Your task to perform on an android device: clear all cookies in the chrome app Image 0: 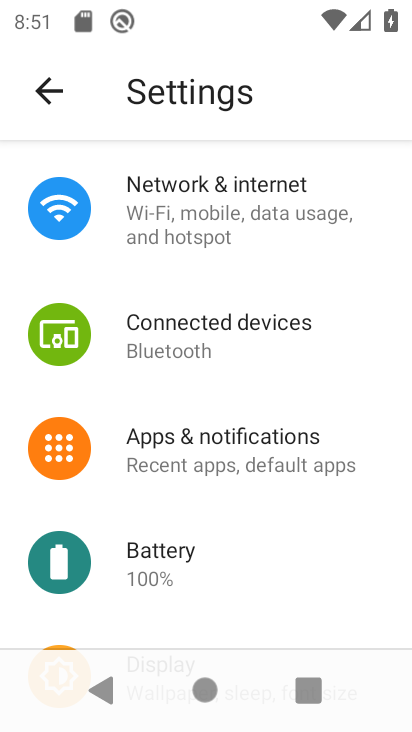
Step 0: press home button
Your task to perform on an android device: clear all cookies in the chrome app Image 1: 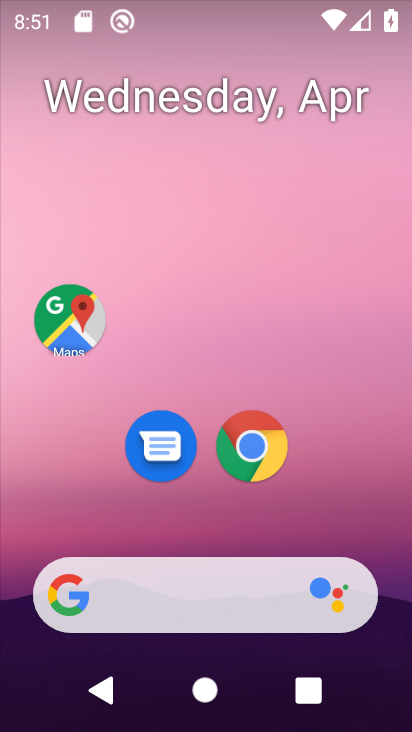
Step 1: drag from (388, 403) to (387, 118)
Your task to perform on an android device: clear all cookies in the chrome app Image 2: 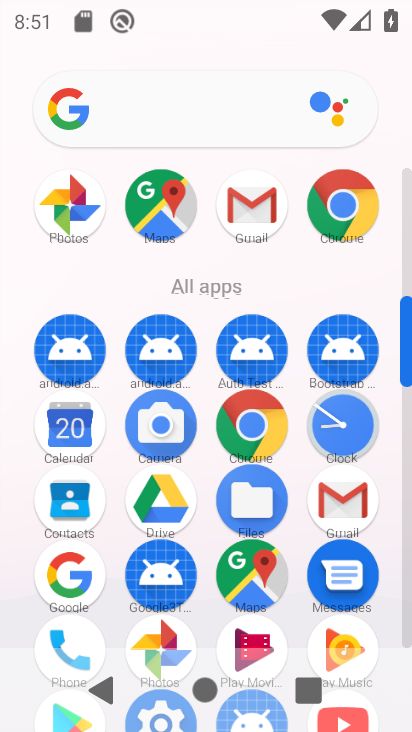
Step 2: click (352, 223)
Your task to perform on an android device: clear all cookies in the chrome app Image 3: 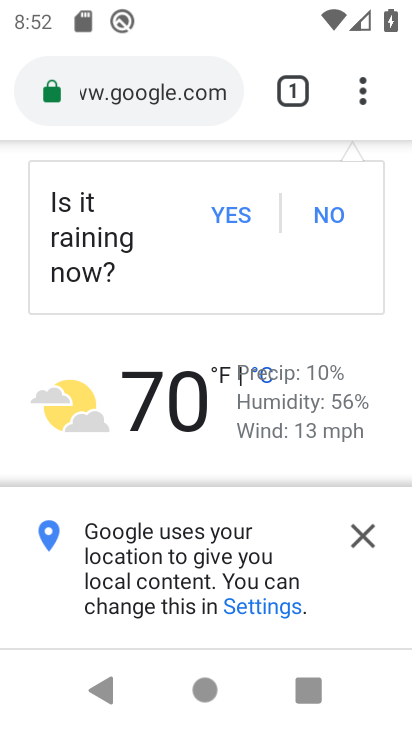
Step 3: click (370, 102)
Your task to perform on an android device: clear all cookies in the chrome app Image 4: 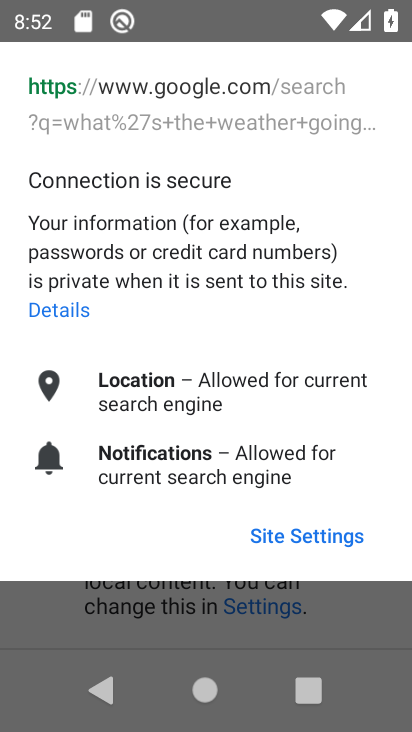
Step 4: click (275, 539)
Your task to perform on an android device: clear all cookies in the chrome app Image 5: 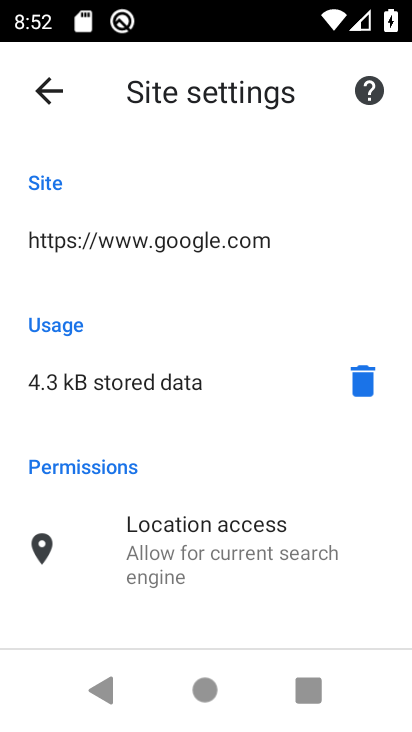
Step 5: click (53, 103)
Your task to perform on an android device: clear all cookies in the chrome app Image 6: 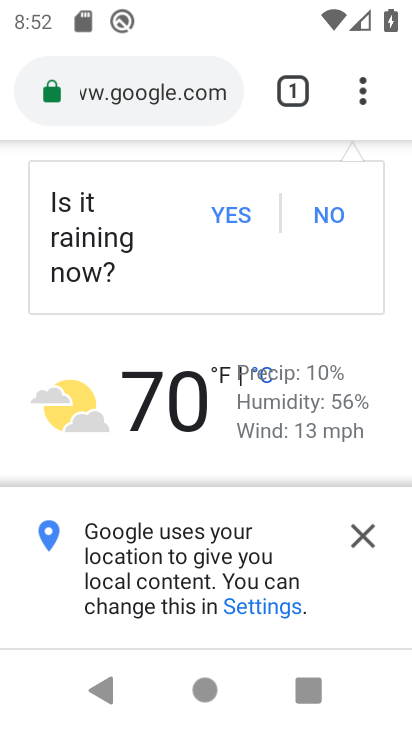
Step 6: drag from (357, 101) to (207, 206)
Your task to perform on an android device: clear all cookies in the chrome app Image 7: 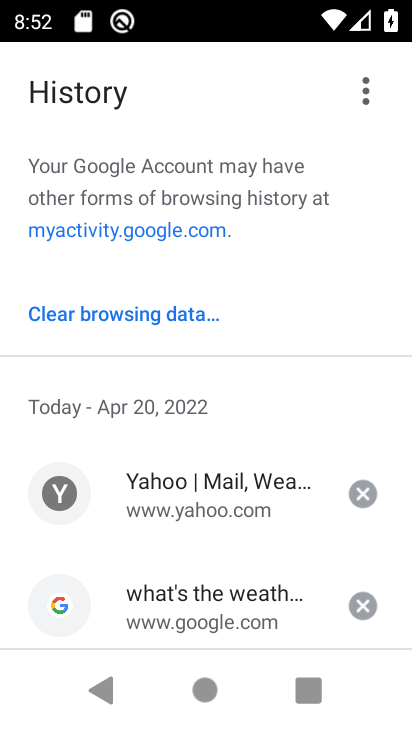
Step 7: click (171, 313)
Your task to perform on an android device: clear all cookies in the chrome app Image 8: 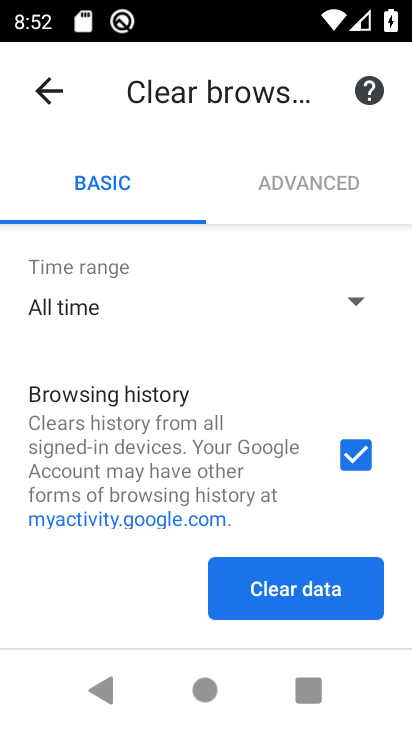
Step 8: click (348, 459)
Your task to perform on an android device: clear all cookies in the chrome app Image 9: 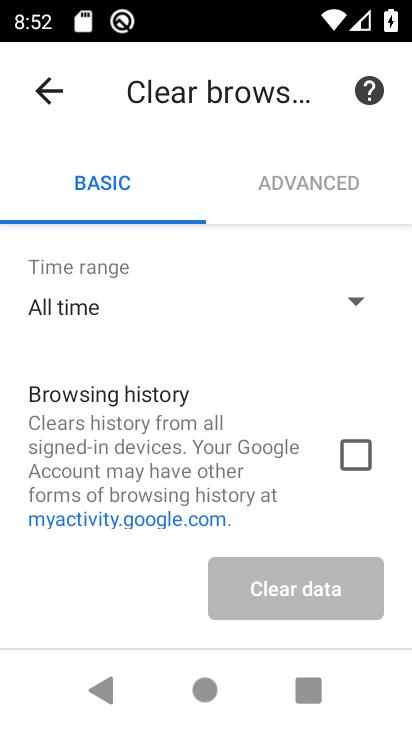
Step 9: drag from (275, 473) to (286, 314)
Your task to perform on an android device: clear all cookies in the chrome app Image 10: 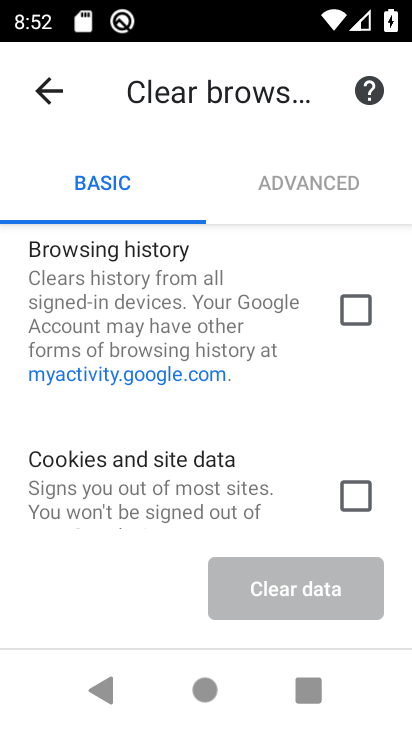
Step 10: click (354, 500)
Your task to perform on an android device: clear all cookies in the chrome app Image 11: 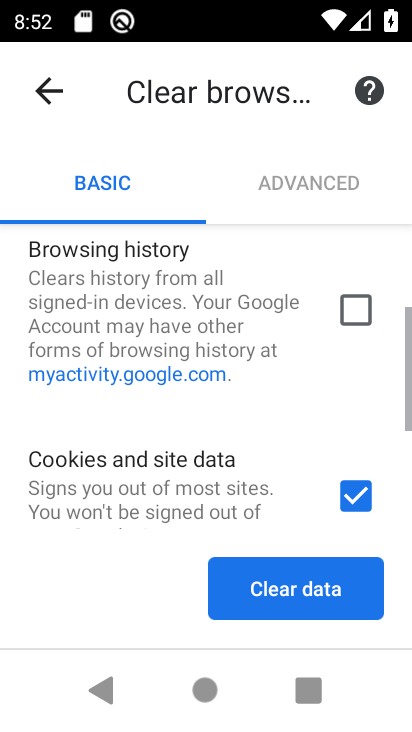
Step 11: click (341, 580)
Your task to perform on an android device: clear all cookies in the chrome app Image 12: 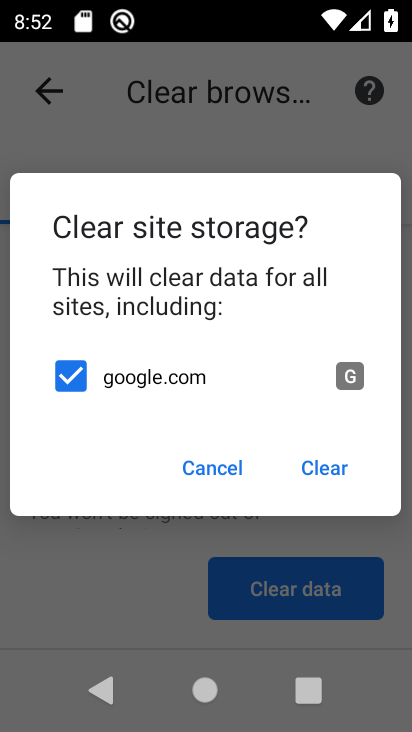
Step 12: click (322, 458)
Your task to perform on an android device: clear all cookies in the chrome app Image 13: 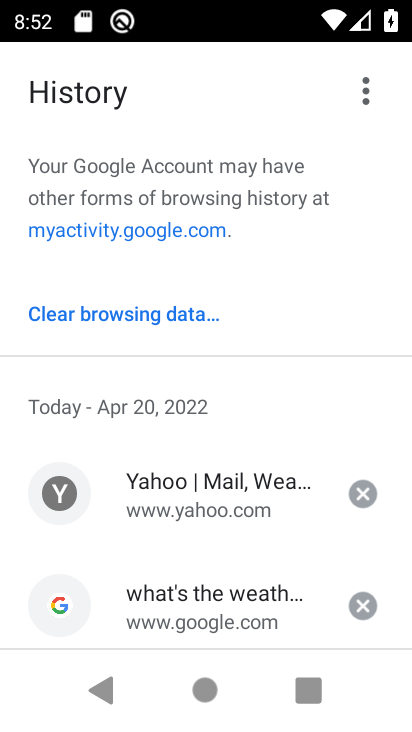
Step 13: task complete